Your task to perform on an android device: Show me recent news Image 0: 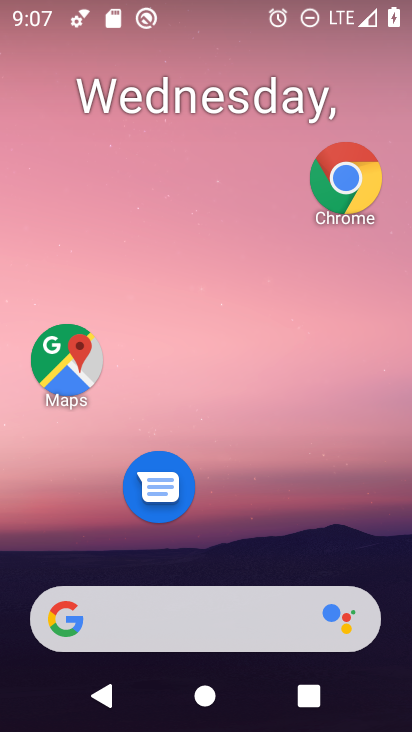
Step 0: drag from (230, 640) to (232, 88)
Your task to perform on an android device: Show me recent news Image 1: 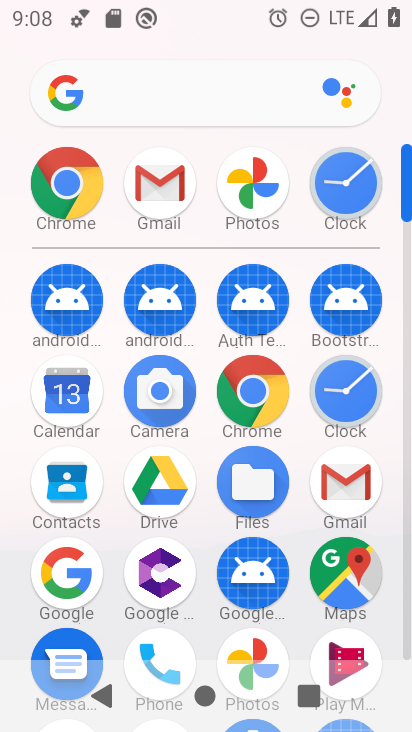
Step 1: click (74, 581)
Your task to perform on an android device: Show me recent news Image 2: 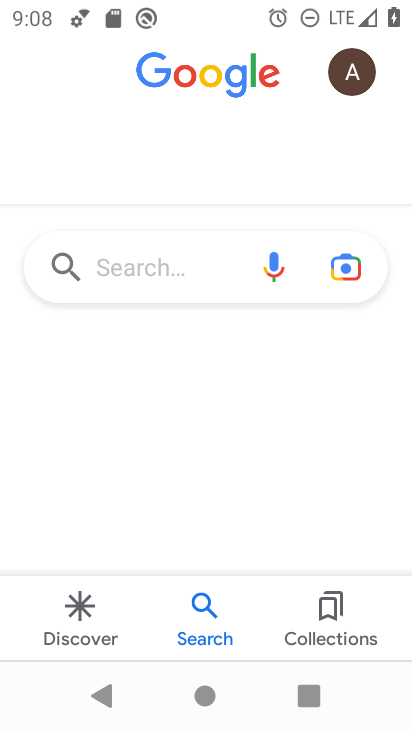
Step 2: click (202, 285)
Your task to perform on an android device: Show me recent news Image 3: 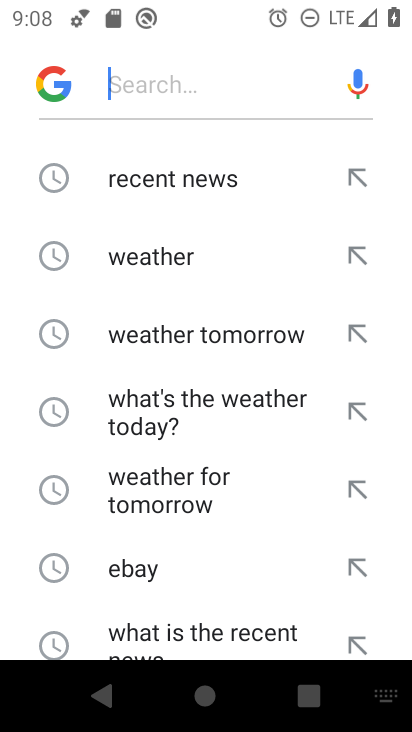
Step 3: click (174, 185)
Your task to perform on an android device: Show me recent news Image 4: 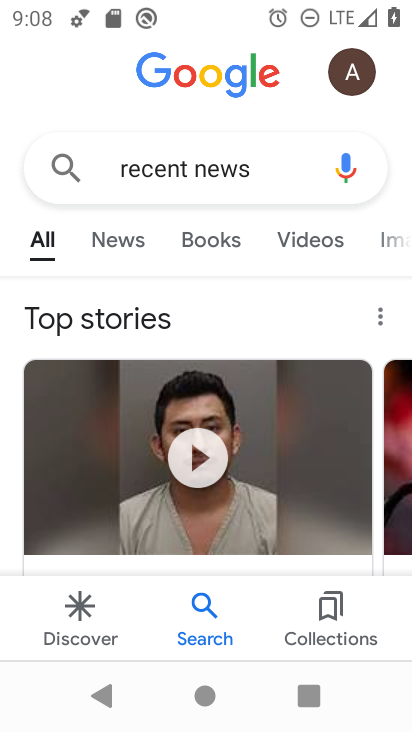
Step 4: click (108, 243)
Your task to perform on an android device: Show me recent news Image 5: 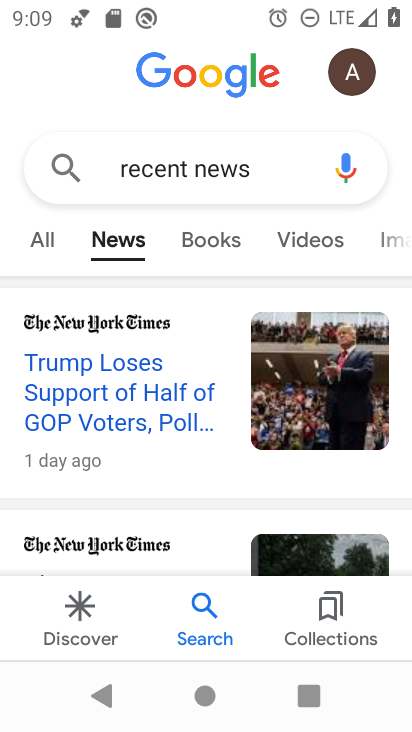
Step 5: task complete